Your task to perform on an android device: Go to display settings Image 0: 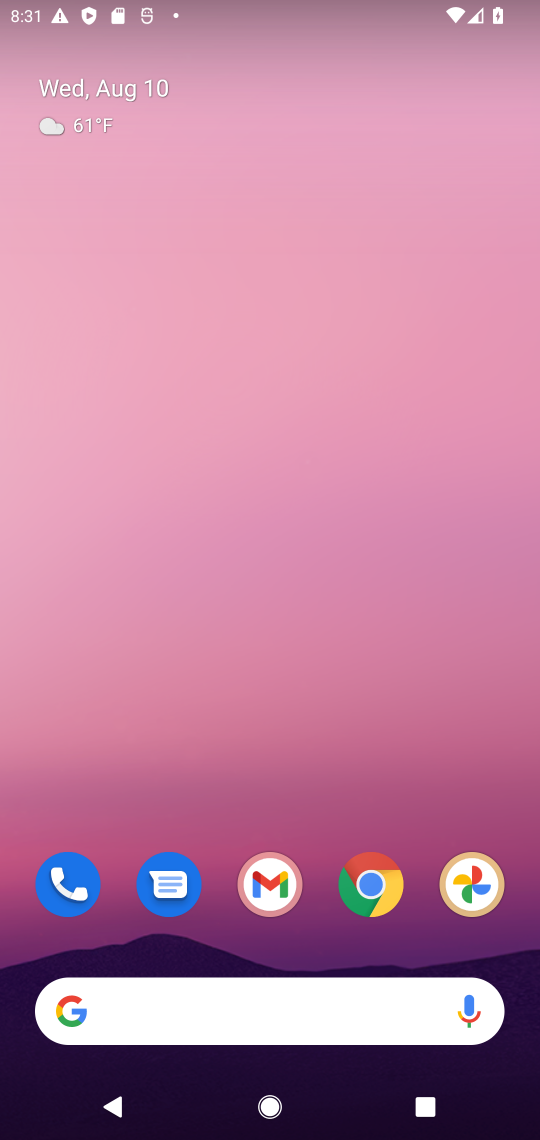
Step 0: drag from (133, 1014) to (158, 895)
Your task to perform on an android device: Go to display settings Image 1: 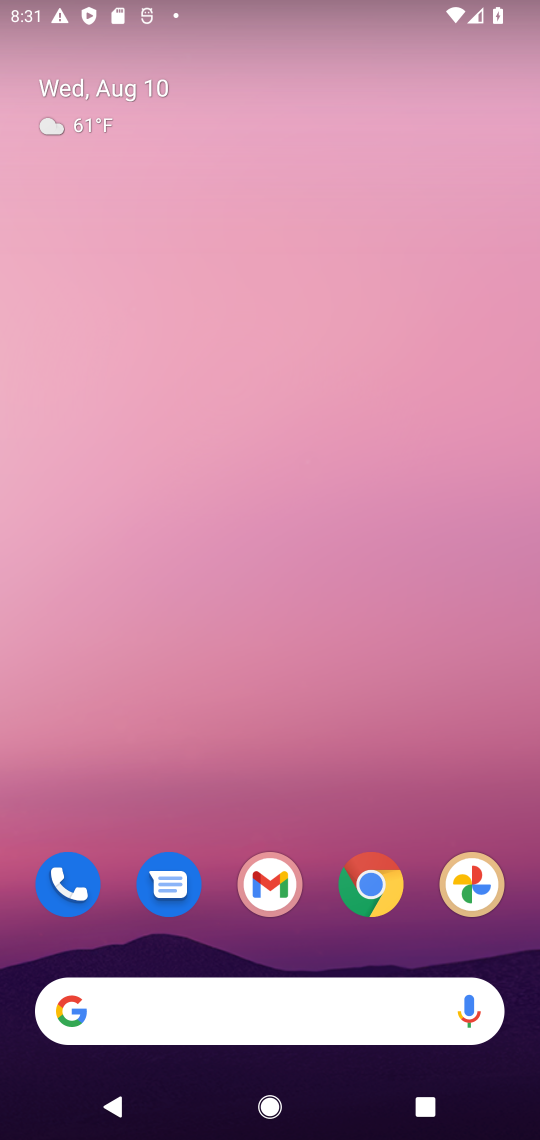
Step 1: drag from (47, 1091) to (215, 310)
Your task to perform on an android device: Go to display settings Image 2: 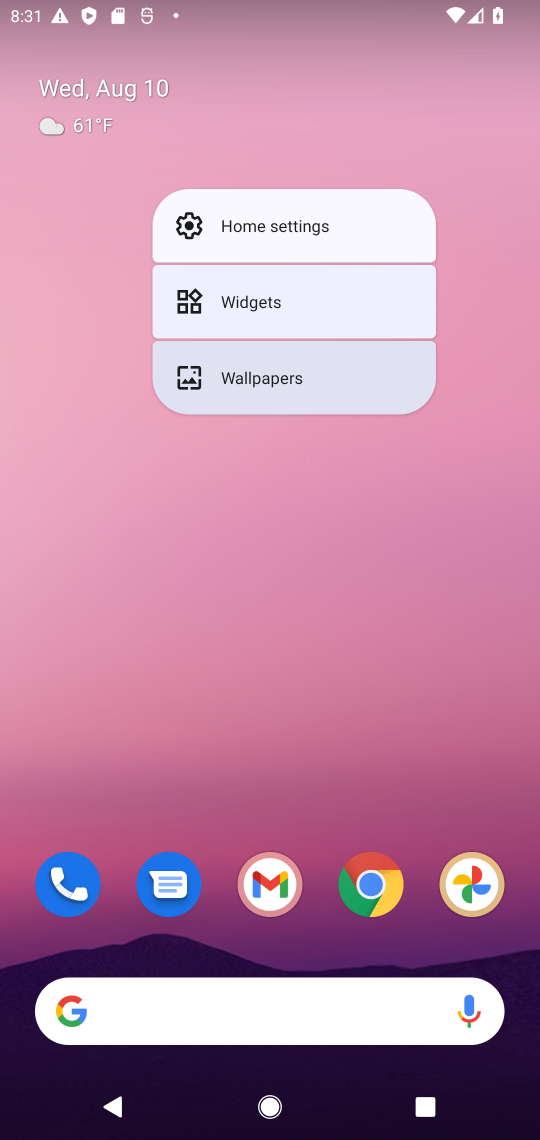
Step 2: drag from (54, 1075) to (45, 531)
Your task to perform on an android device: Go to display settings Image 3: 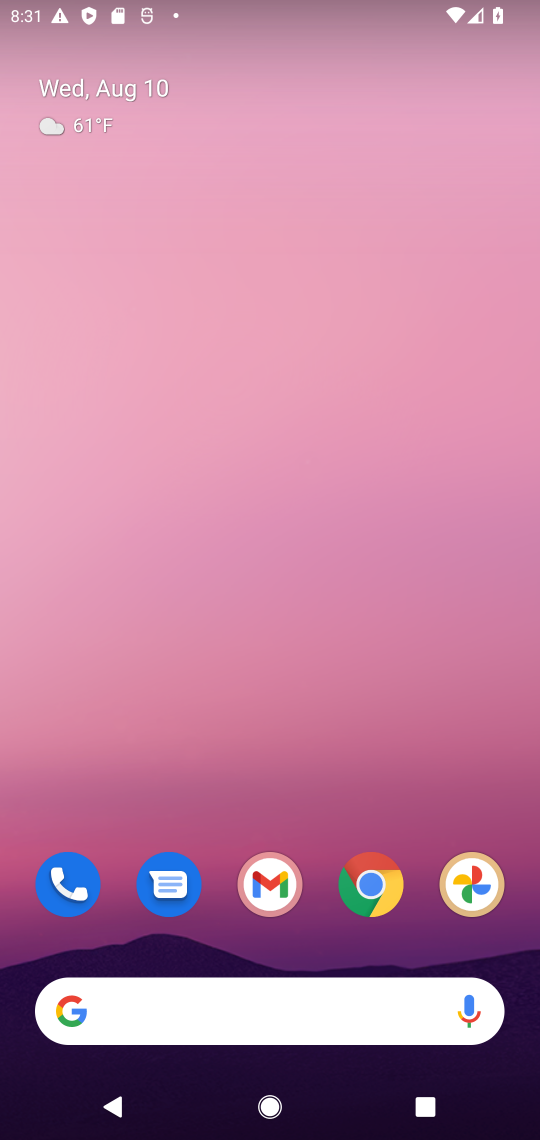
Step 3: drag from (34, 1075) to (95, 489)
Your task to perform on an android device: Go to display settings Image 4: 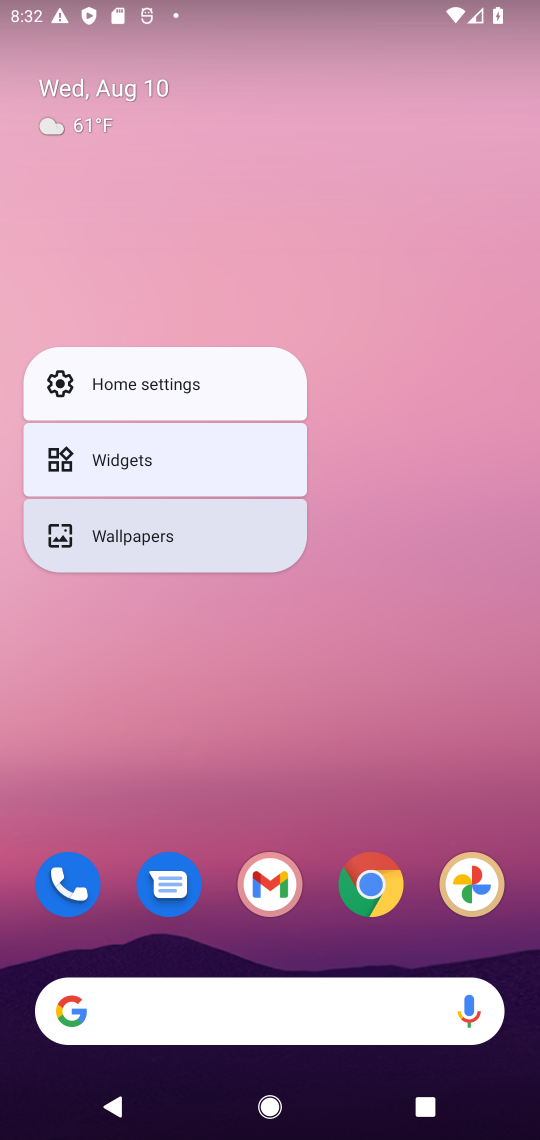
Step 4: drag from (71, 1094) to (463, 396)
Your task to perform on an android device: Go to display settings Image 5: 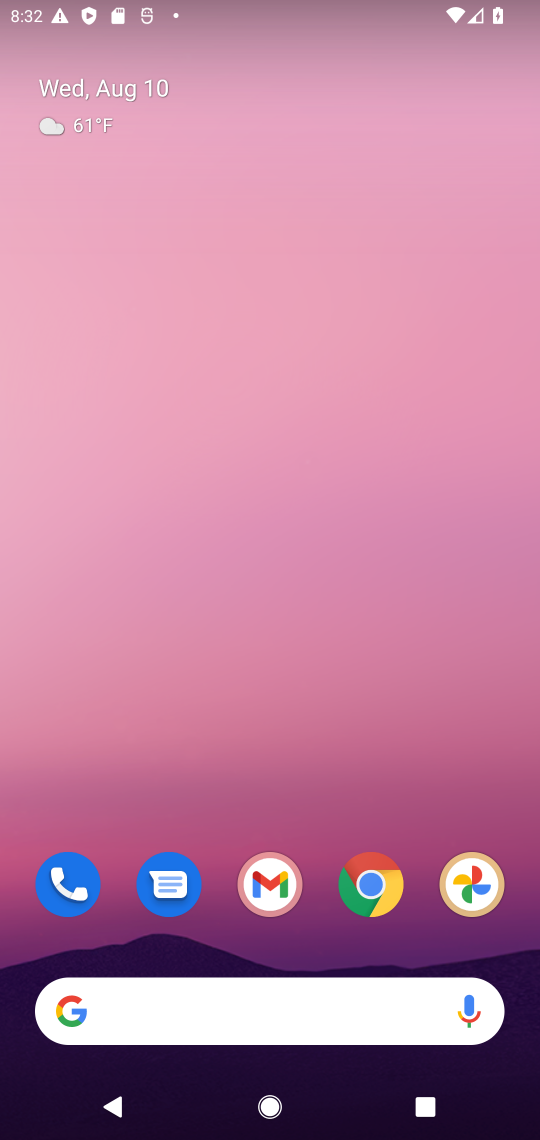
Step 5: drag from (67, 1053) to (144, 258)
Your task to perform on an android device: Go to display settings Image 6: 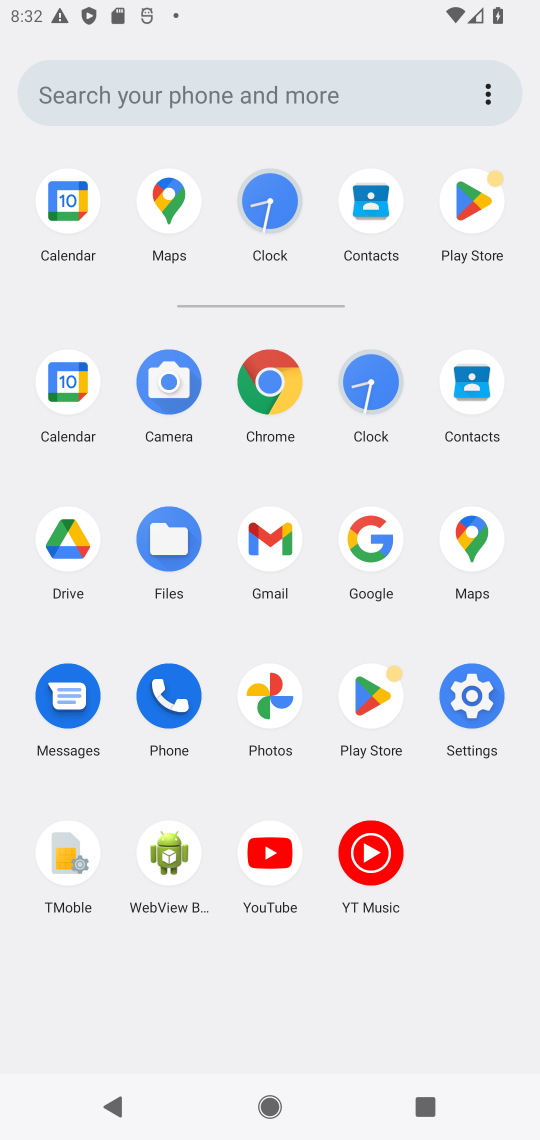
Step 6: click (484, 720)
Your task to perform on an android device: Go to display settings Image 7: 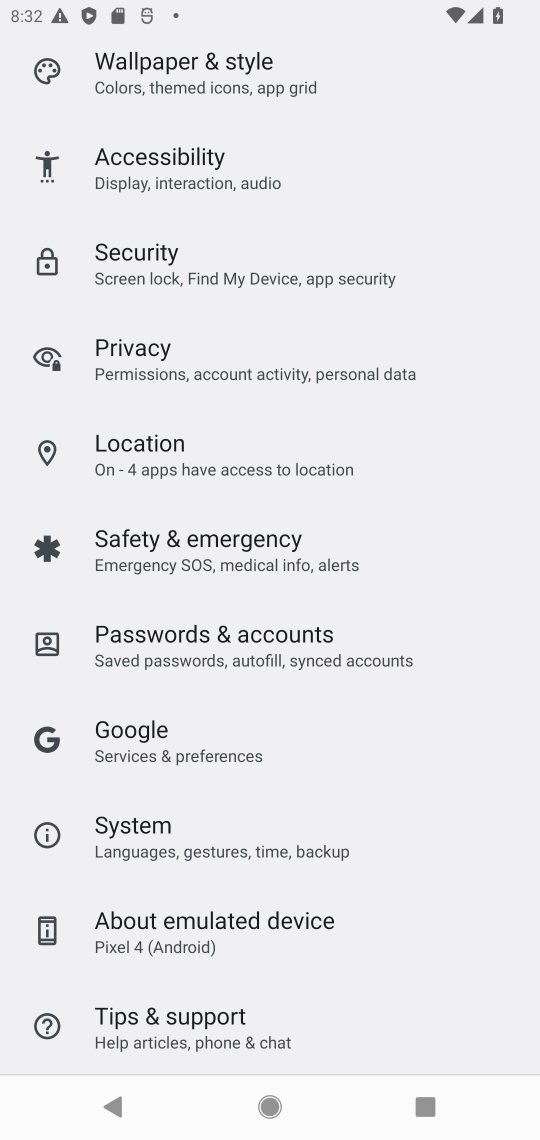
Step 7: drag from (434, 204) to (515, 987)
Your task to perform on an android device: Go to display settings Image 8: 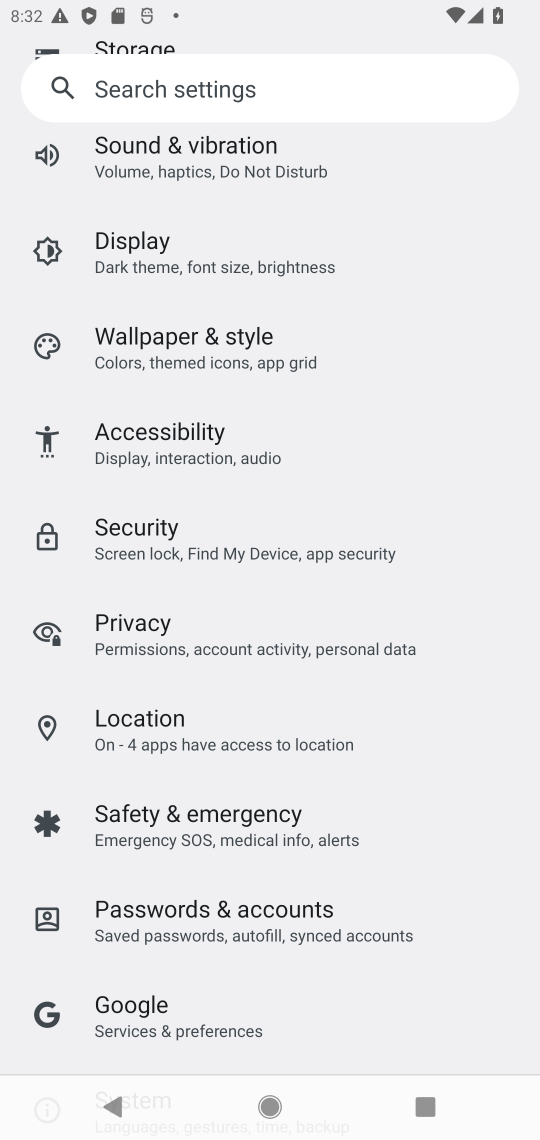
Step 8: click (160, 257)
Your task to perform on an android device: Go to display settings Image 9: 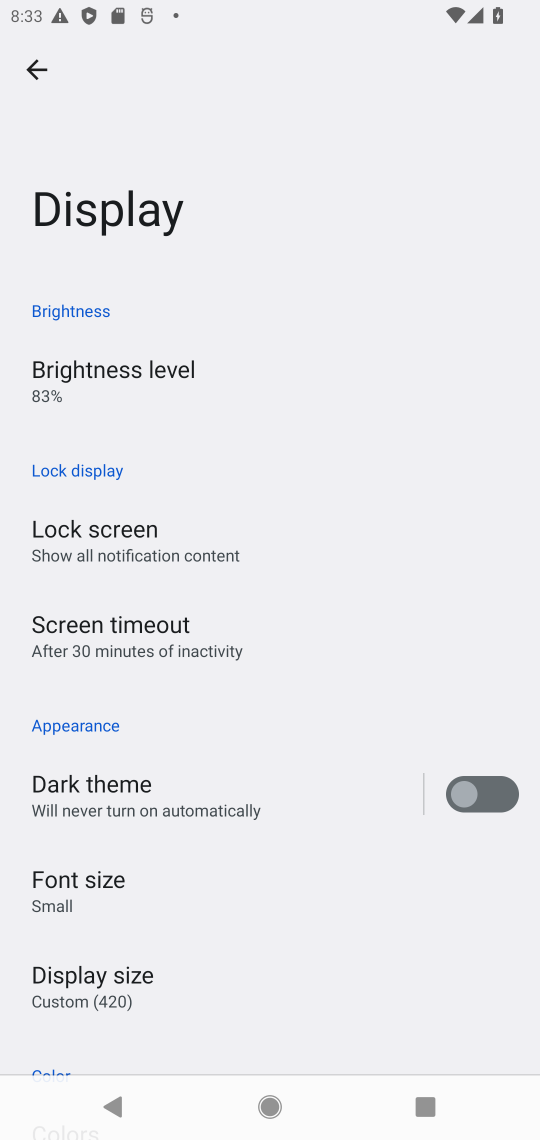
Step 9: task complete